Your task to perform on an android device: set default search engine in the chrome app Image 0: 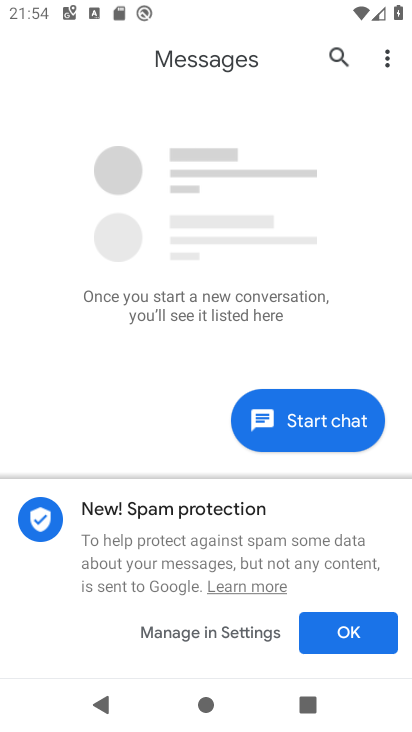
Step 0: press home button
Your task to perform on an android device: set default search engine in the chrome app Image 1: 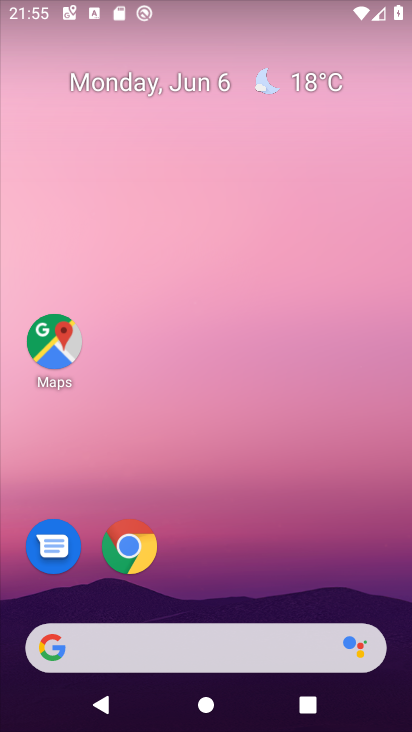
Step 1: click (132, 548)
Your task to perform on an android device: set default search engine in the chrome app Image 2: 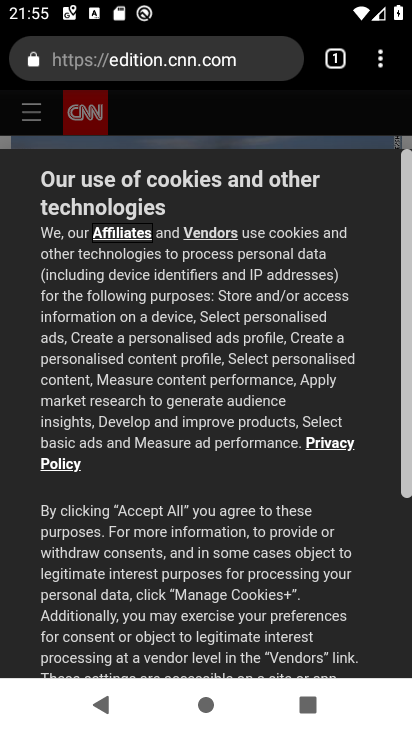
Step 2: click (379, 62)
Your task to perform on an android device: set default search engine in the chrome app Image 3: 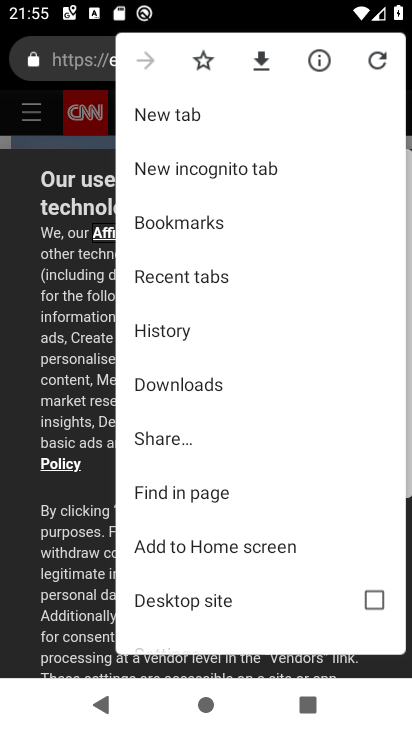
Step 3: drag from (314, 584) to (325, 114)
Your task to perform on an android device: set default search engine in the chrome app Image 4: 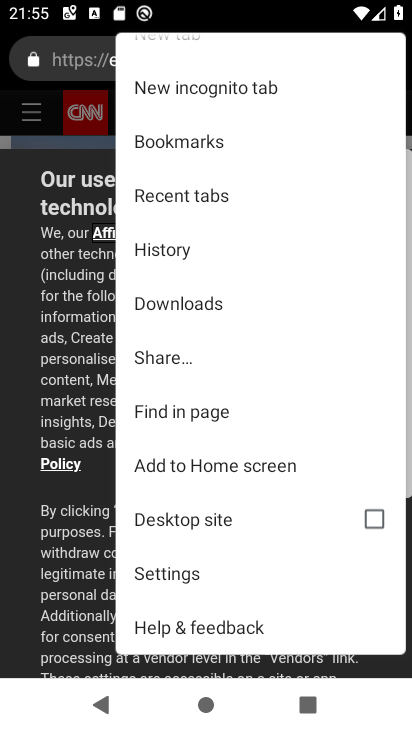
Step 4: click (181, 574)
Your task to perform on an android device: set default search engine in the chrome app Image 5: 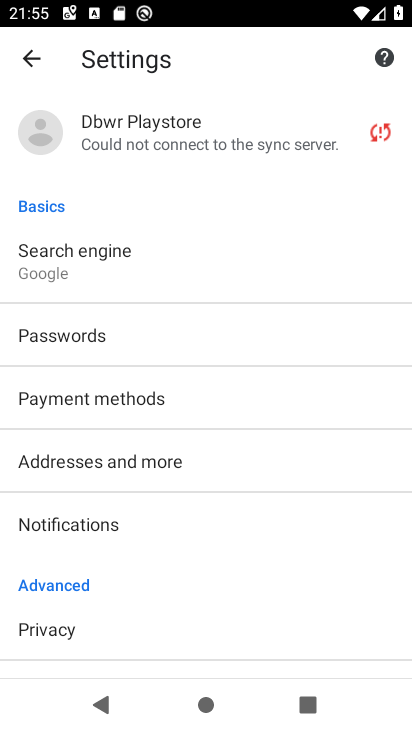
Step 5: drag from (190, 608) to (193, 535)
Your task to perform on an android device: set default search engine in the chrome app Image 6: 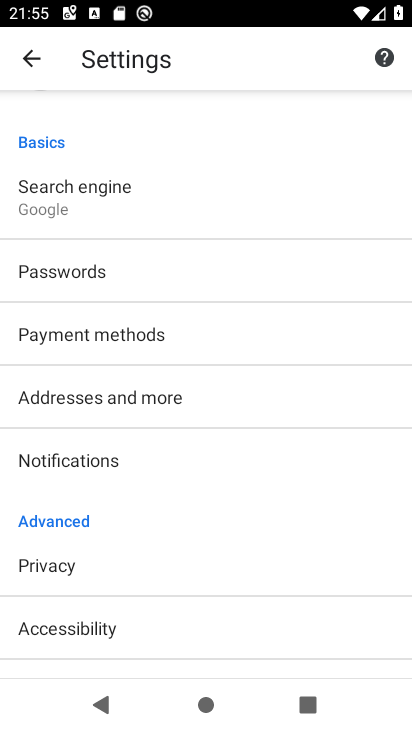
Step 6: click (56, 181)
Your task to perform on an android device: set default search engine in the chrome app Image 7: 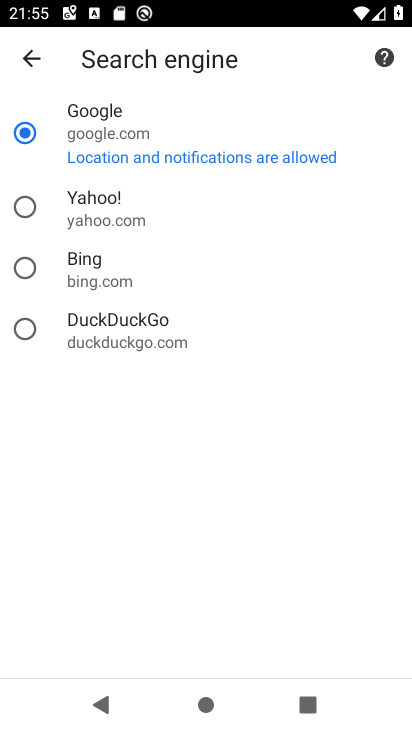
Step 7: click (87, 212)
Your task to perform on an android device: set default search engine in the chrome app Image 8: 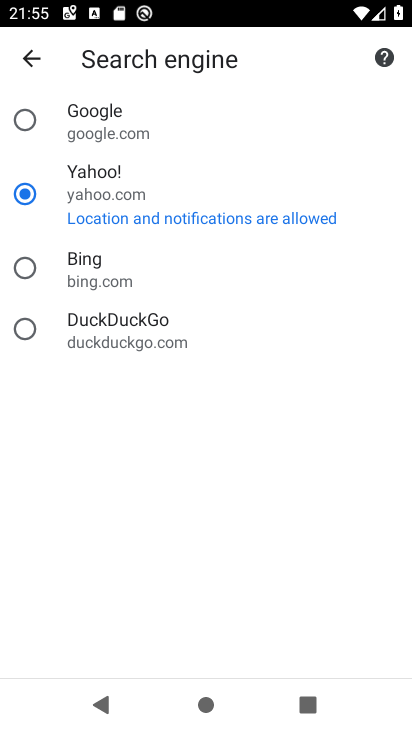
Step 8: task complete